Your task to perform on an android device: Open network settings Image 0: 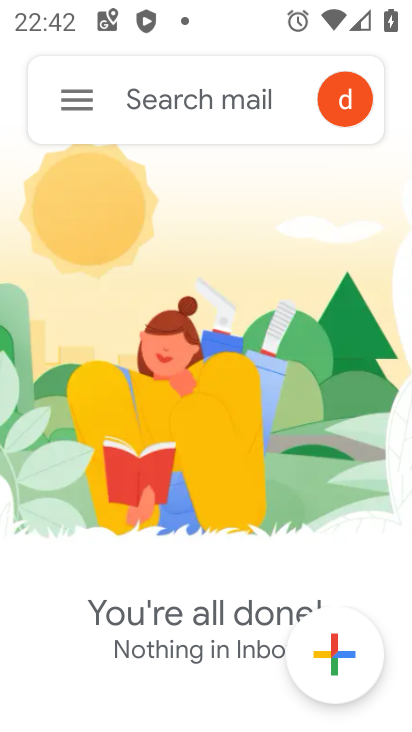
Step 0: press home button
Your task to perform on an android device: Open network settings Image 1: 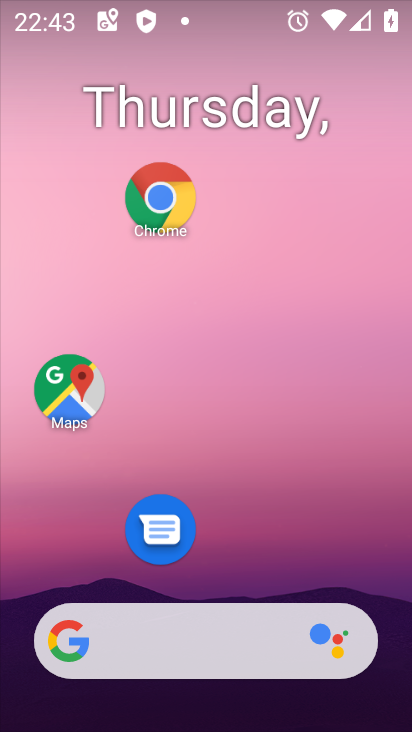
Step 1: drag from (259, 521) to (175, 61)
Your task to perform on an android device: Open network settings Image 2: 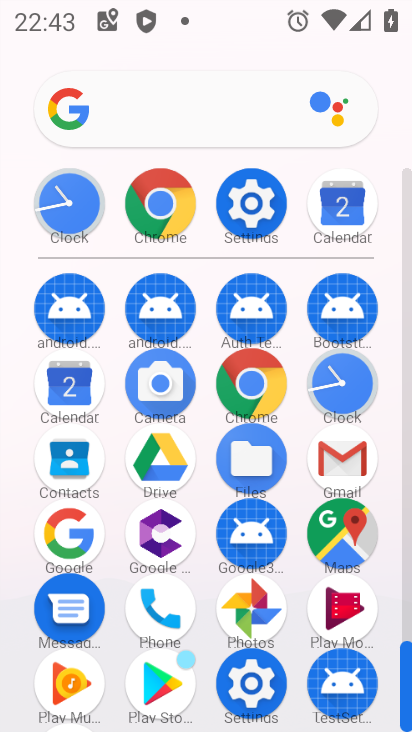
Step 2: click (253, 206)
Your task to perform on an android device: Open network settings Image 3: 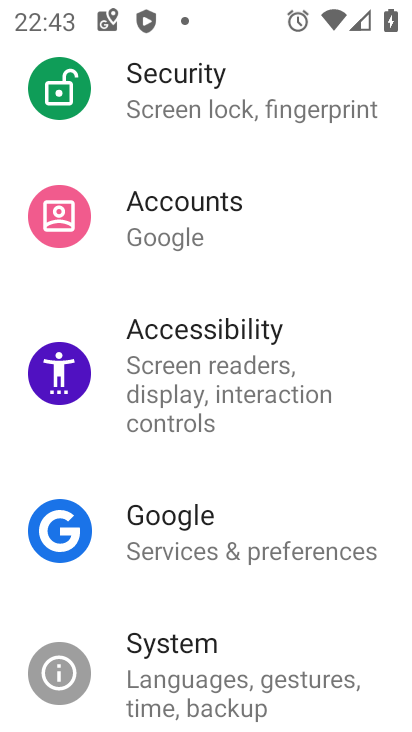
Step 3: drag from (227, 168) to (213, 600)
Your task to perform on an android device: Open network settings Image 4: 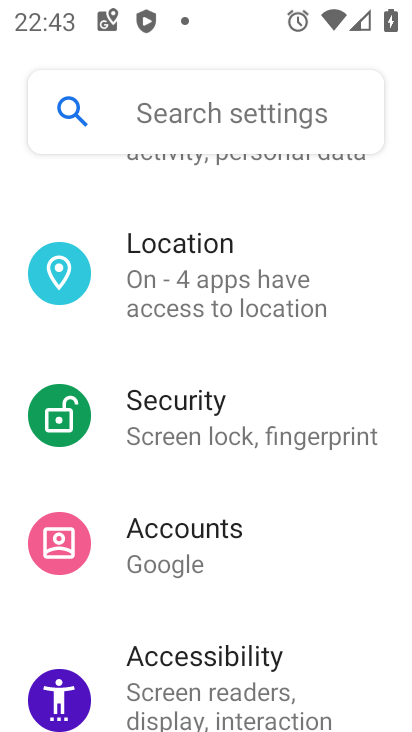
Step 4: drag from (285, 216) to (266, 614)
Your task to perform on an android device: Open network settings Image 5: 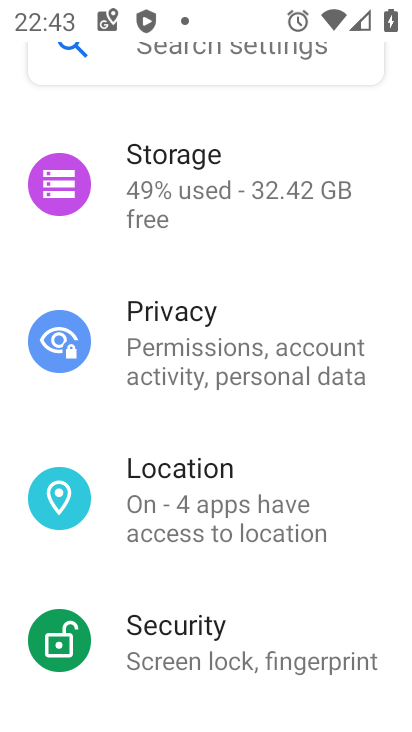
Step 5: drag from (191, 255) to (109, 567)
Your task to perform on an android device: Open network settings Image 6: 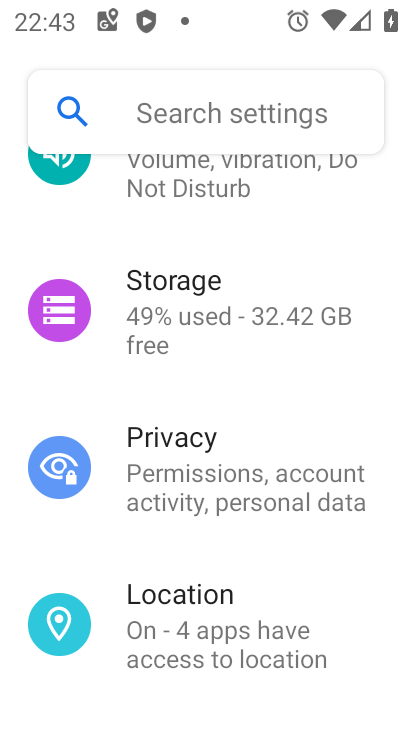
Step 6: drag from (163, 238) to (158, 675)
Your task to perform on an android device: Open network settings Image 7: 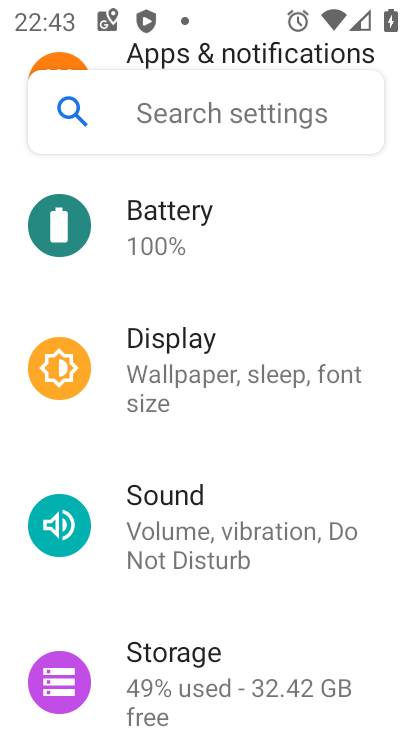
Step 7: drag from (159, 293) to (161, 654)
Your task to perform on an android device: Open network settings Image 8: 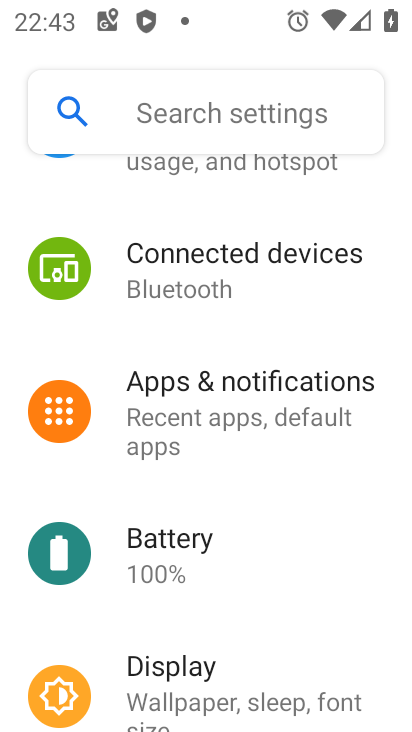
Step 8: drag from (177, 336) to (164, 723)
Your task to perform on an android device: Open network settings Image 9: 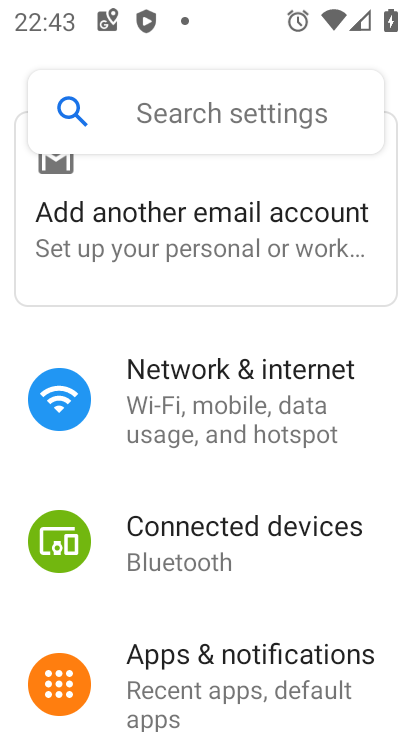
Step 9: click (203, 376)
Your task to perform on an android device: Open network settings Image 10: 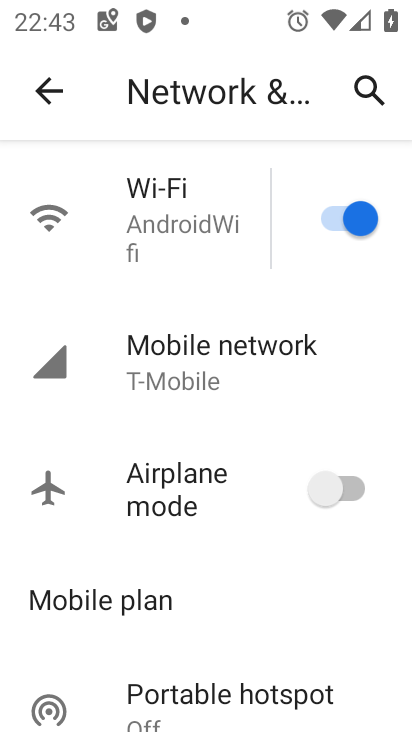
Step 10: task complete